Your task to perform on an android device: uninstall "Upside-Cash back on gas & food" Image 0: 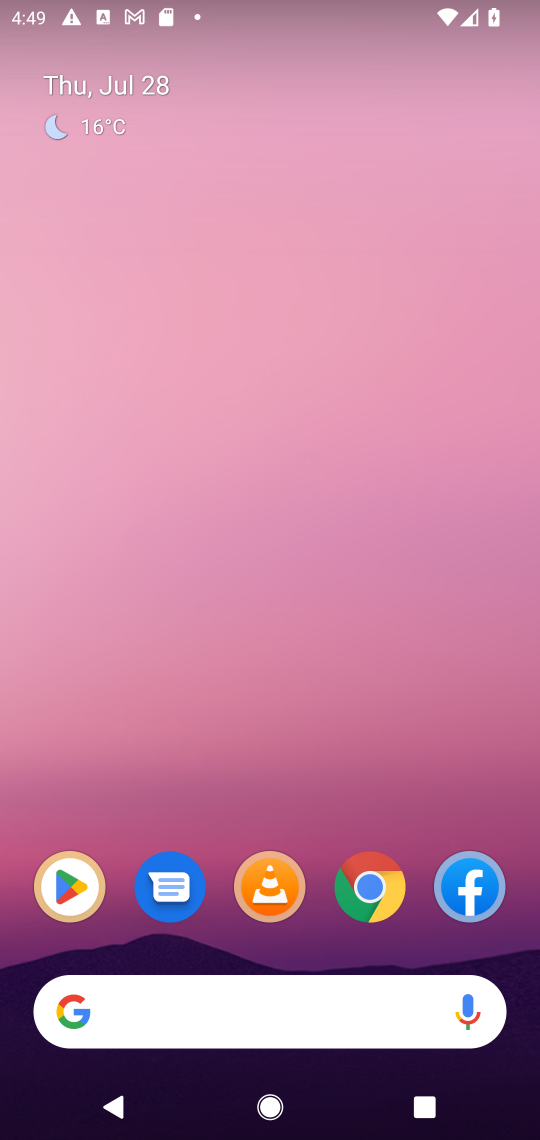
Step 0: click (48, 891)
Your task to perform on an android device: uninstall "Upside-Cash back on gas & food" Image 1: 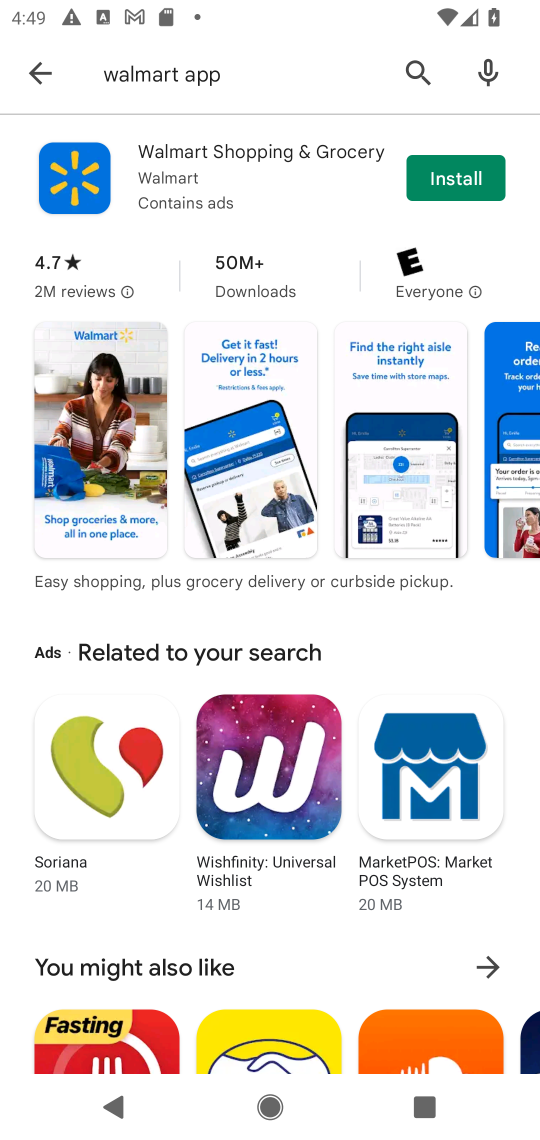
Step 1: click (196, 79)
Your task to perform on an android device: uninstall "Upside-Cash back on gas & food" Image 2: 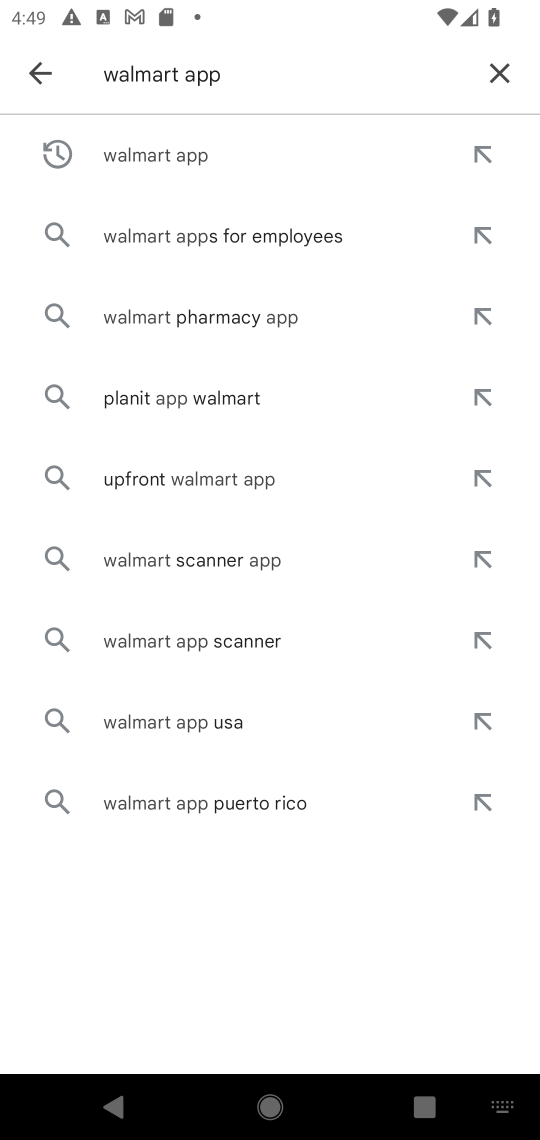
Step 2: click (497, 84)
Your task to perform on an android device: uninstall "Upside-Cash back on gas & food" Image 3: 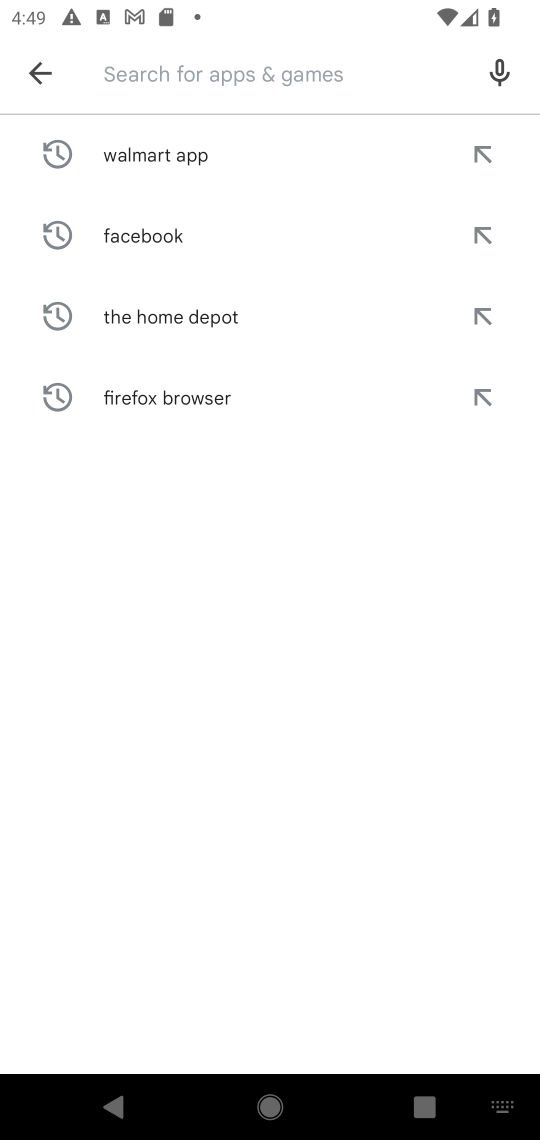
Step 3: type "Upside "
Your task to perform on an android device: uninstall "Upside-Cash back on gas & food" Image 4: 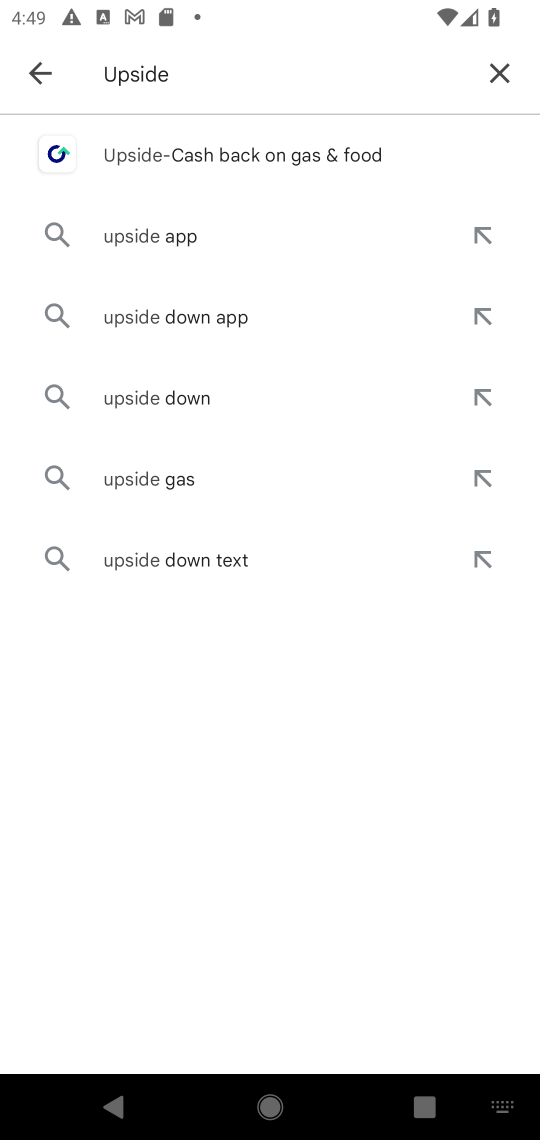
Step 4: click (204, 151)
Your task to perform on an android device: uninstall "Upside-Cash back on gas & food" Image 5: 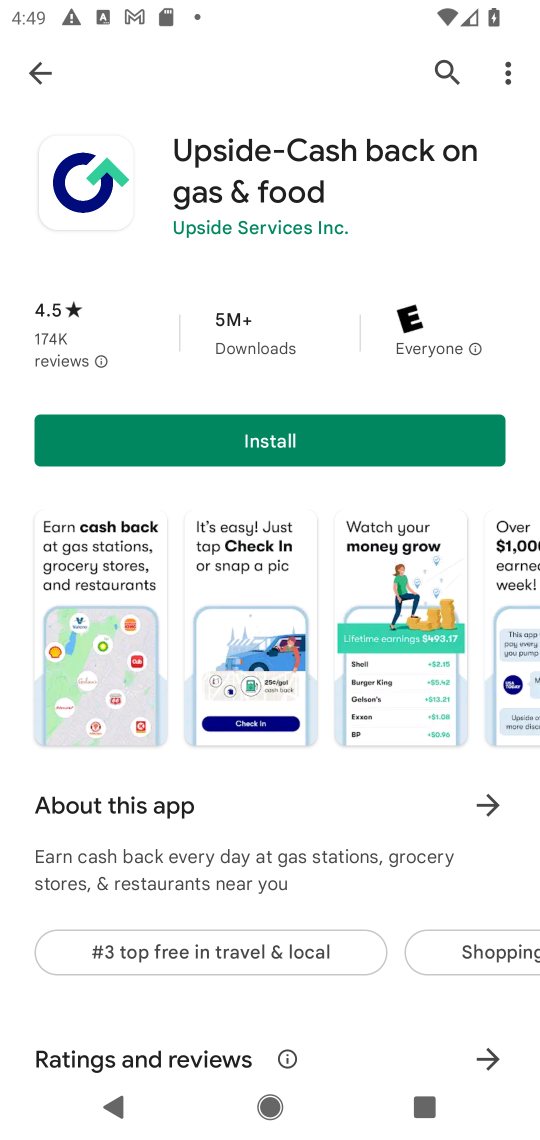
Step 5: task complete